Your task to perform on an android device: Go to network settings Image 0: 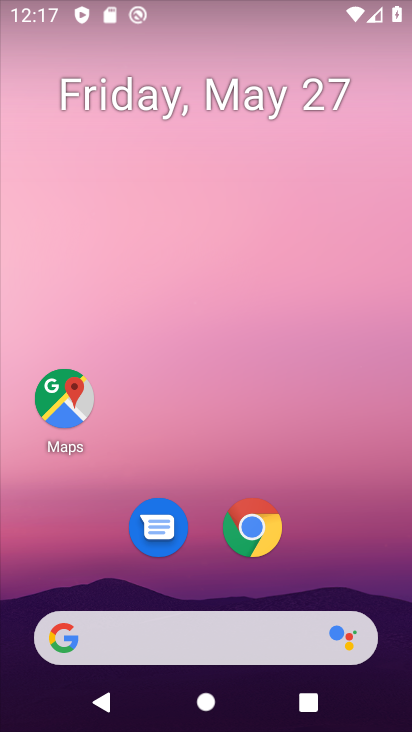
Step 0: click (245, 17)
Your task to perform on an android device: Go to network settings Image 1: 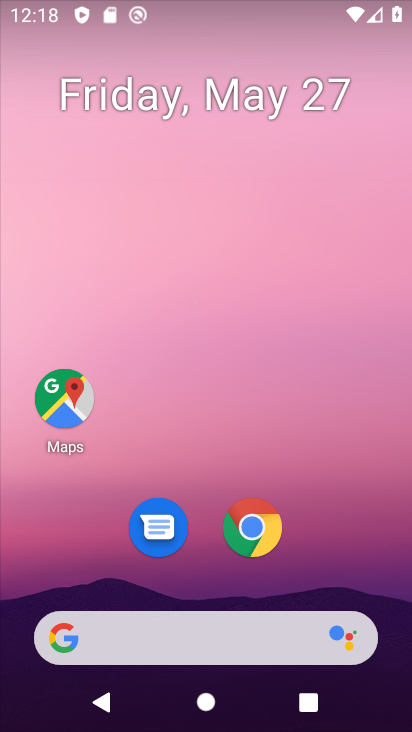
Step 1: drag from (151, 642) to (287, 7)
Your task to perform on an android device: Go to network settings Image 2: 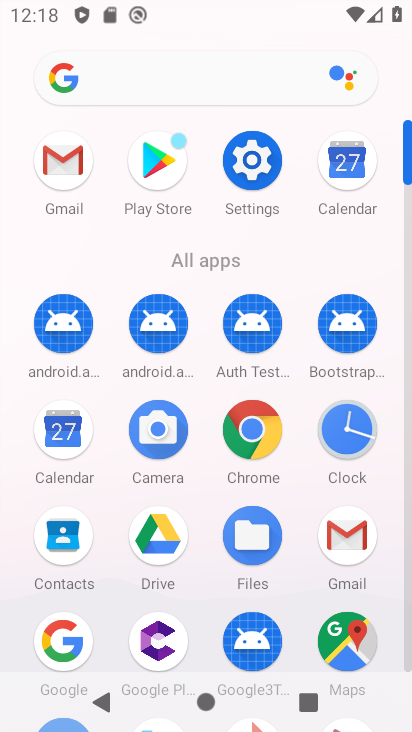
Step 2: click (258, 148)
Your task to perform on an android device: Go to network settings Image 3: 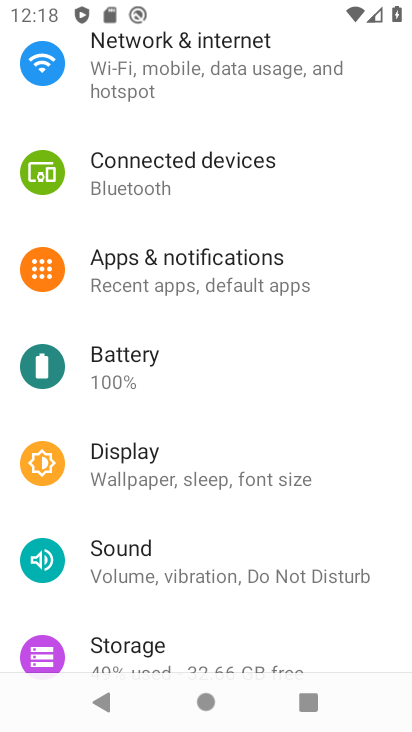
Step 3: drag from (362, 150) to (272, 534)
Your task to perform on an android device: Go to network settings Image 4: 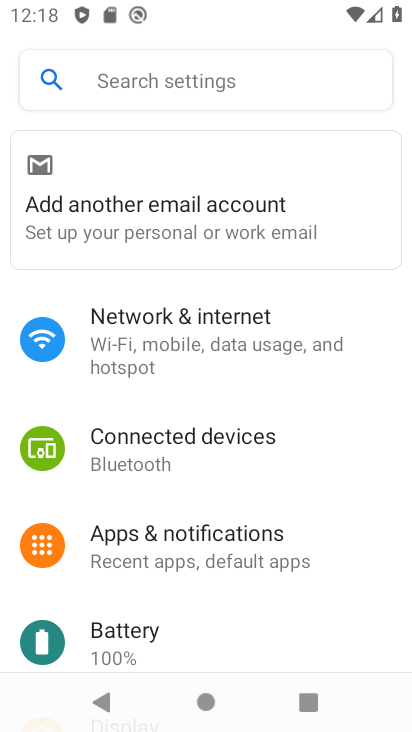
Step 4: click (300, 327)
Your task to perform on an android device: Go to network settings Image 5: 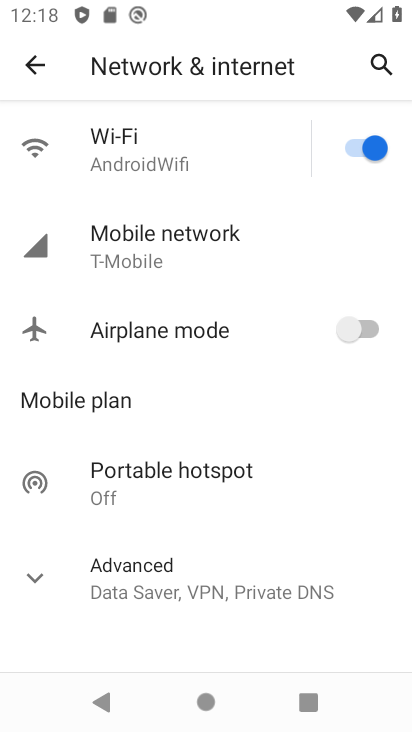
Step 5: task complete